Your task to perform on an android device: Check the news Image 0: 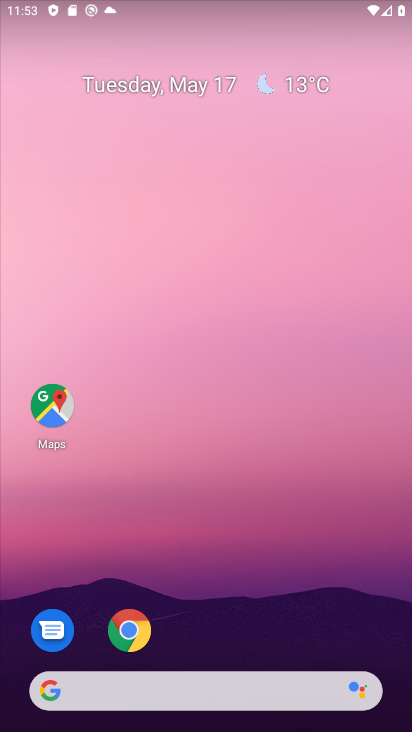
Step 0: drag from (7, 264) to (319, 248)
Your task to perform on an android device: Check the news Image 1: 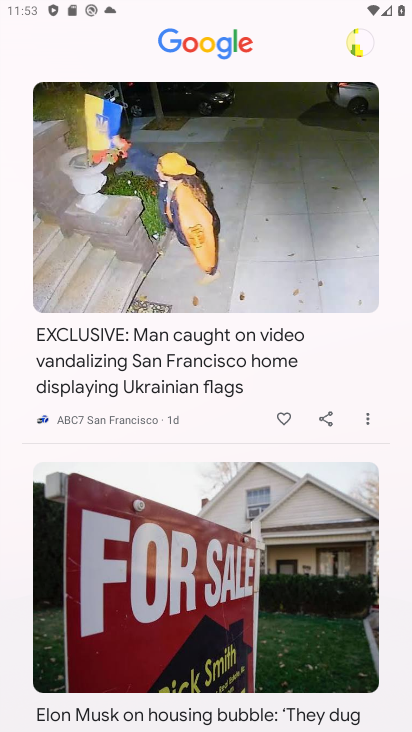
Step 1: task complete